Your task to perform on an android device: Go to Amazon Image 0: 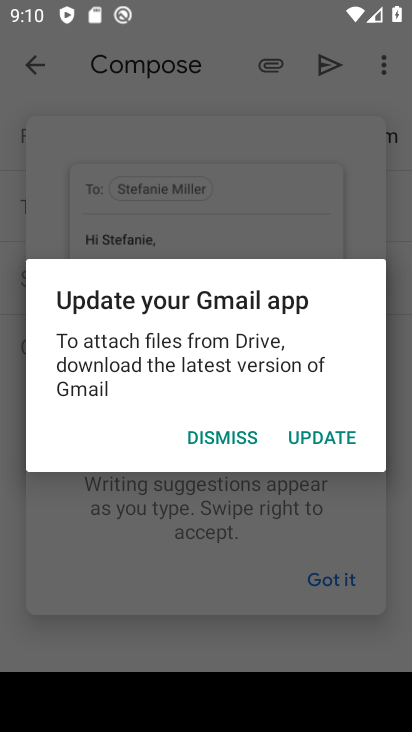
Step 0: press home button
Your task to perform on an android device: Go to Amazon Image 1: 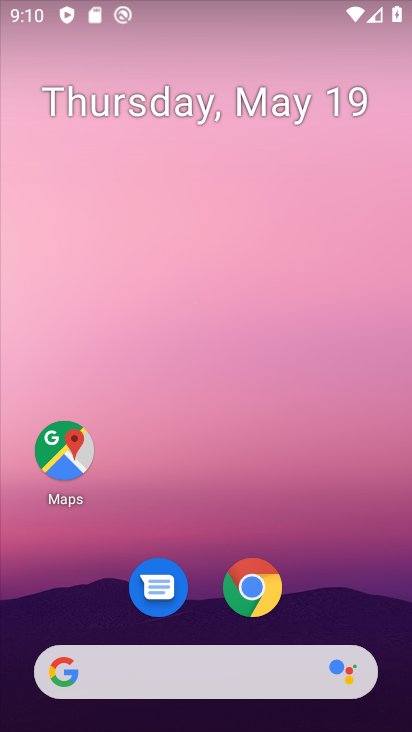
Step 1: click (253, 589)
Your task to perform on an android device: Go to Amazon Image 2: 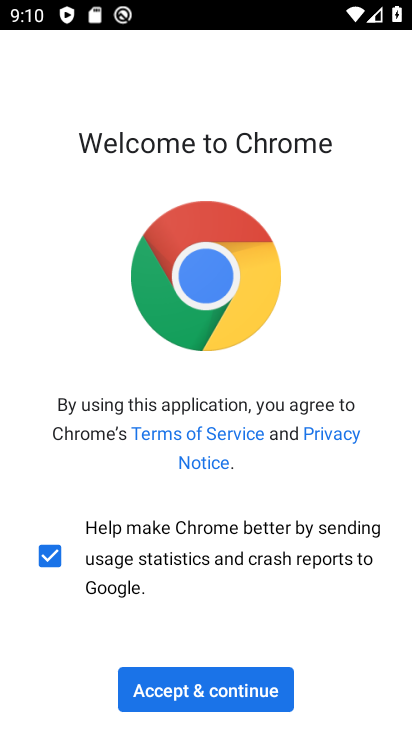
Step 2: click (223, 702)
Your task to perform on an android device: Go to Amazon Image 3: 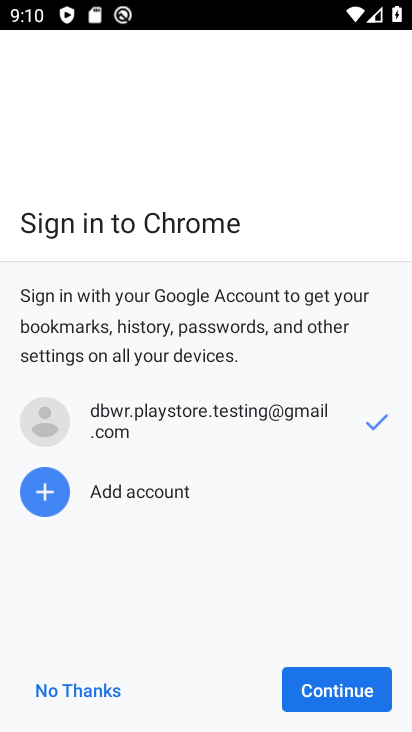
Step 3: click (317, 689)
Your task to perform on an android device: Go to Amazon Image 4: 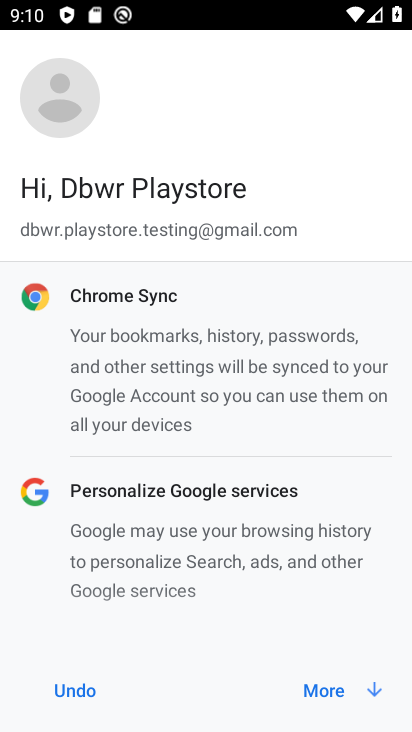
Step 4: click (317, 692)
Your task to perform on an android device: Go to Amazon Image 5: 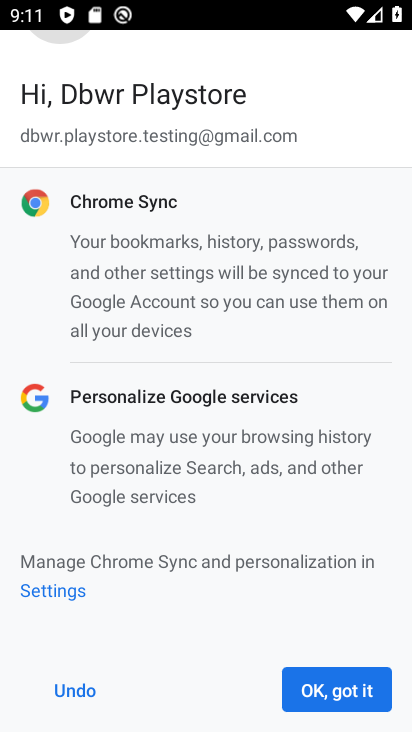
Step 5: click (317, 692)
Your task to perform on an android device: Go to Amazon Image 6: 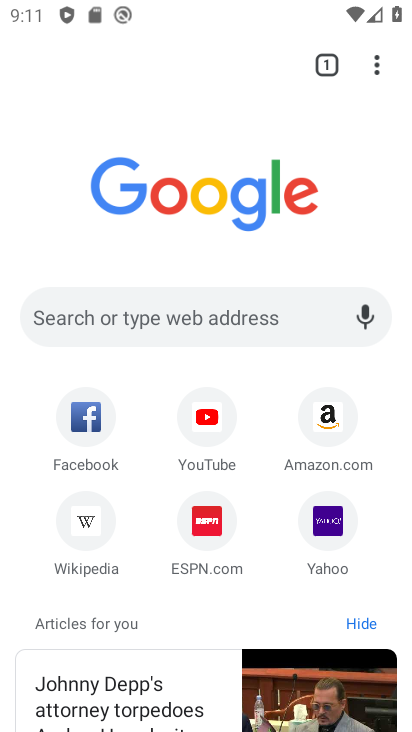
Step 6: click (309, 431)
Your task to perform on an android device: Go to Amazon Image 7: 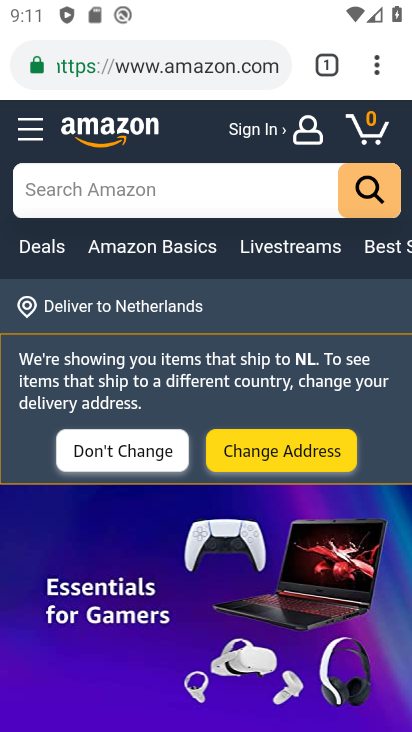
Step 7: task complete